Your task to perform on an android device: add a contact in the contacts app Image 0: 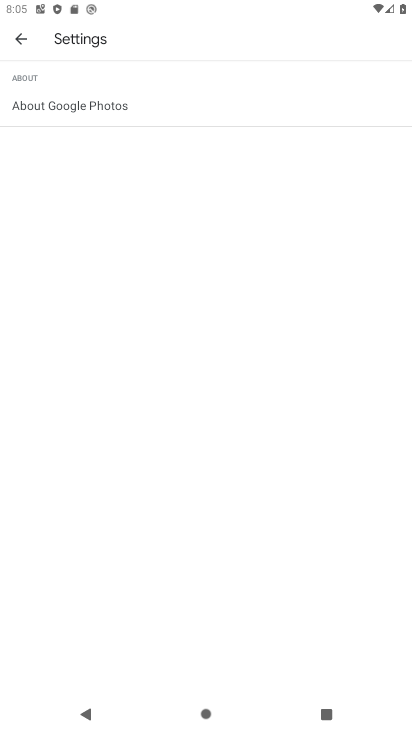
Step 0: press home button
Your task to perform on an android device: add a contact in the contacts app Image 1: 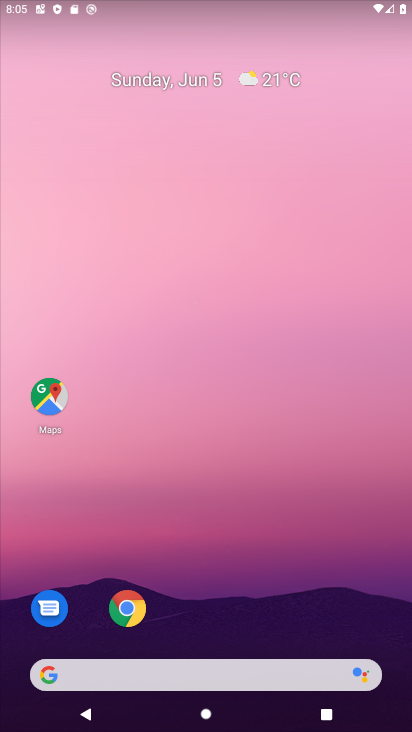
Step 1: drag from (342, 596) to (307, 282)
Your task to perform on an android device: add a contact in the contacts app Image 2: 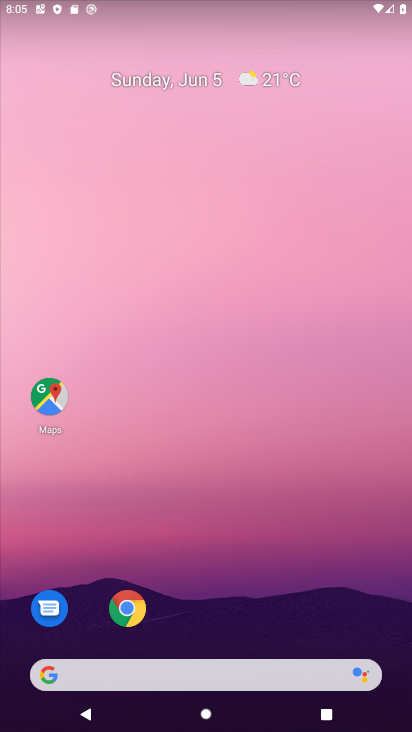
Step 2: drag from (269, 583) to (252, 245)
Your task to perform on an android device: add a contact in the contacts app Image 3: 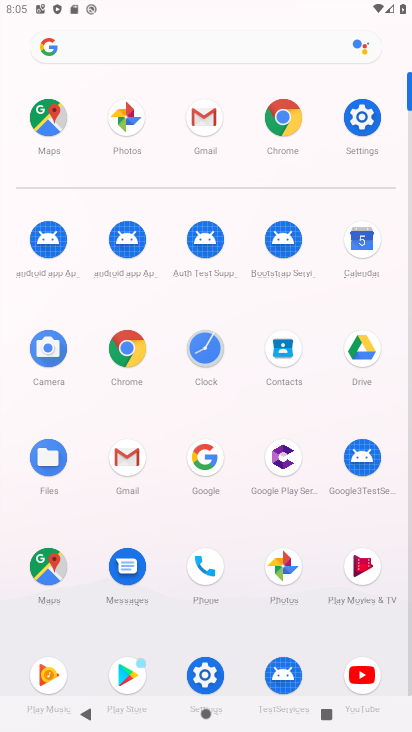
Step 3: click (288, 360)
Your task to perform on an android device: add a contact in the contacts app Image 4: 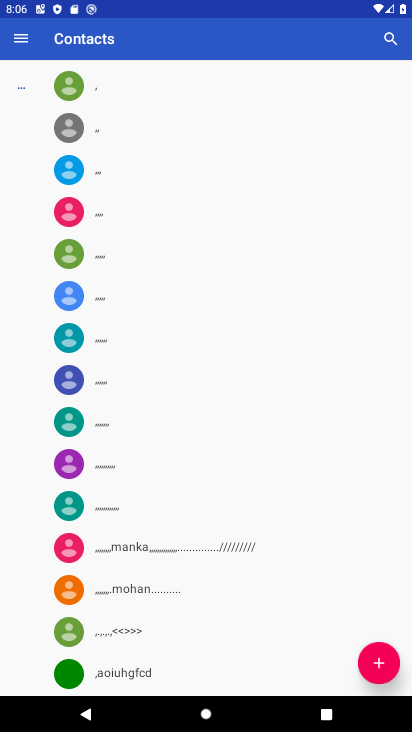
Step 4: drag from (315, 514) to (313, 343)
Your task to perform on an android device: add a contact in the contacts app Image 5: 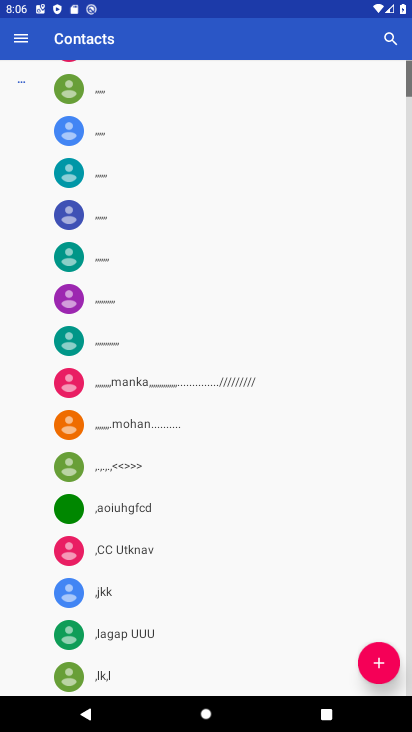
Step 5: click (374, 665)
Your task to perform on an android device: add a contact in the contacts app Image 6: 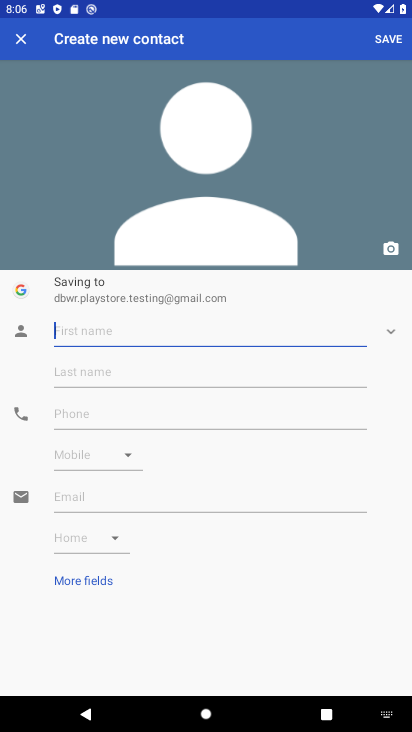
Step 6: click (149, 321)
Your task to perform on an android device: add a contact in the contacts app Image 7: 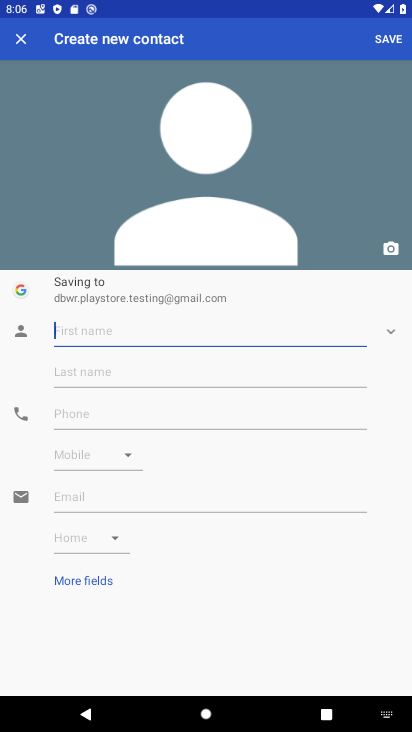
Step 7: type "gavi"
Your task to perform on an android device: add a contact in the contacts app Image 8: 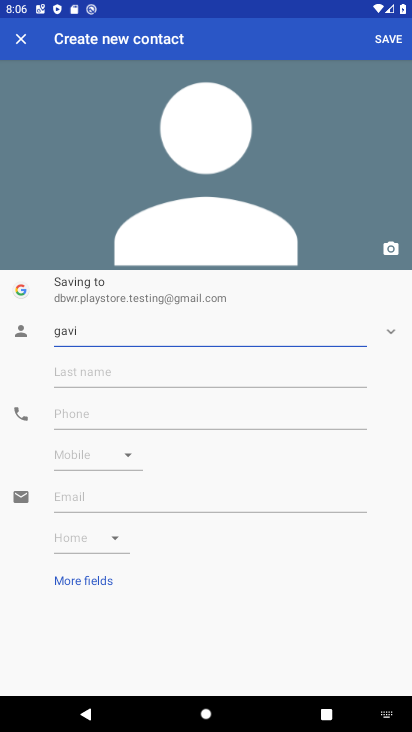
Step 8: click (135, 416)
Your task to perform on an android device: add a contact in the contacts app Image 9: 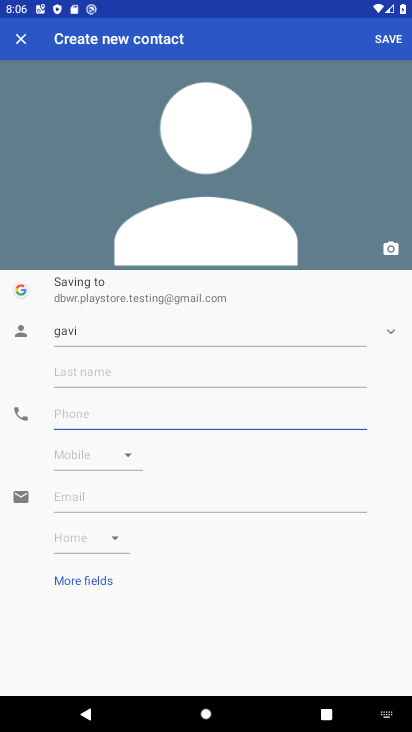
Step 9: type "83928283938"
Your task to perform on an android device: add a contact in the contacts app Image 10: 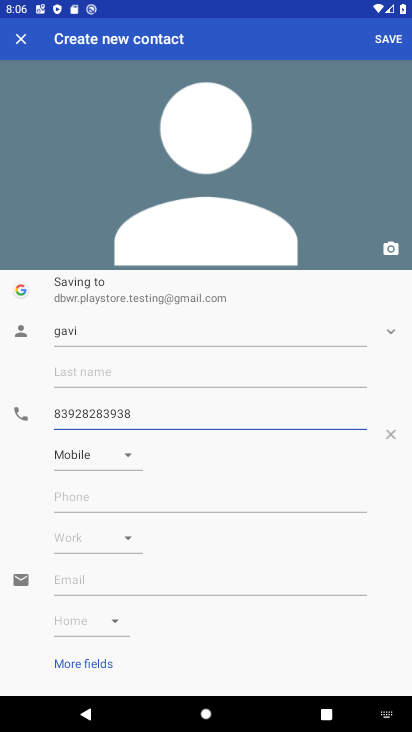
Step 10: click (375, 37)
Your task to perform on an android device: add a contact in the contacts app Image 11: 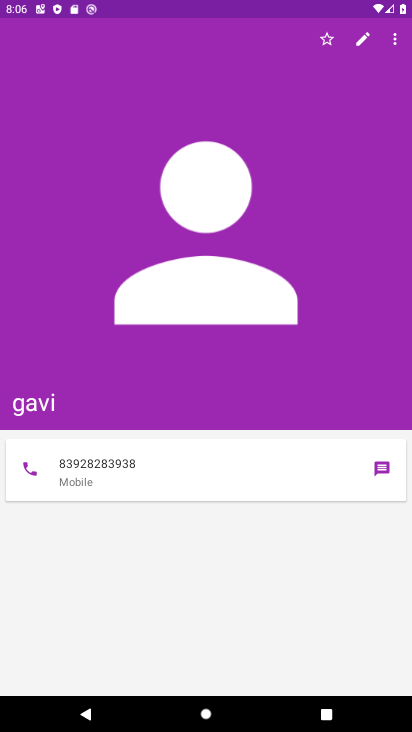
Step 11: task complete